Your task to perform on an android device: Search for vegetarian restaurants on Maps Image 0: 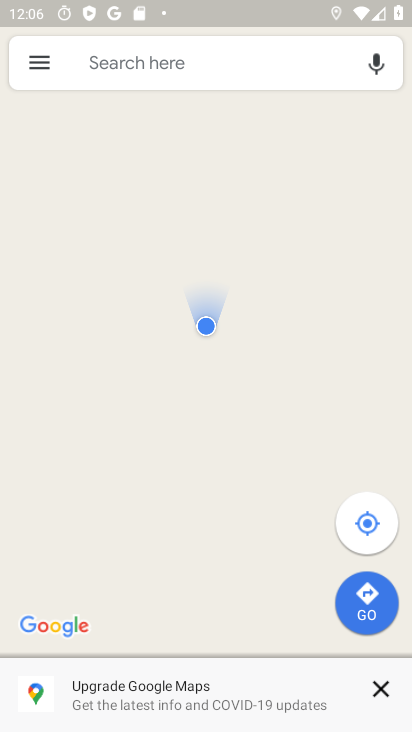
Step 0: press home button
Your task to perform on an android device: Search for vegetarian restaurants on Maps Image 1: 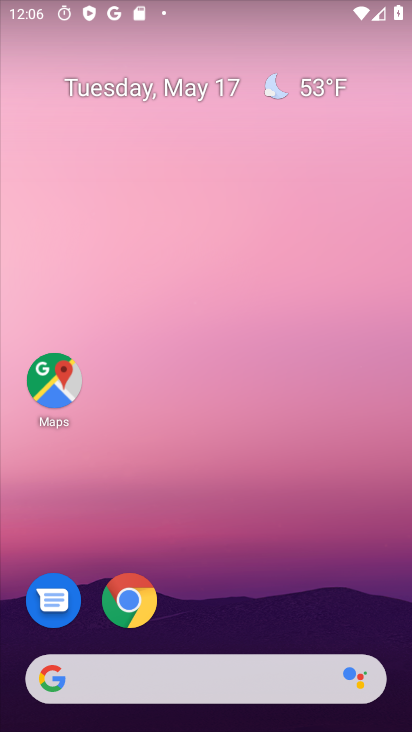
Step 1: drag from (227, 622) to (238, 124)
Your task to perform on an android device: Search for vegetarian restaurants on Maps Image 2: 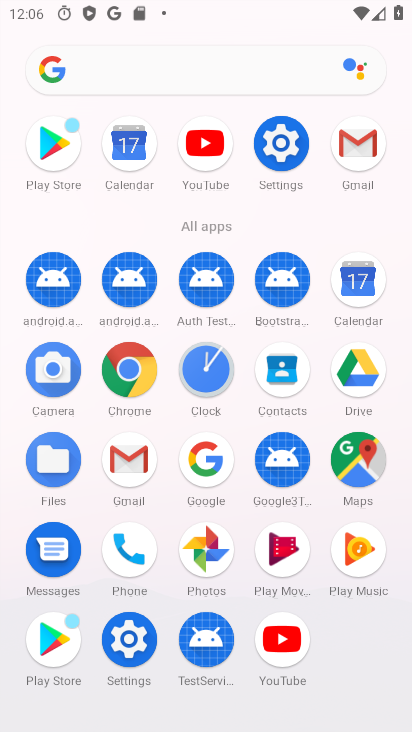
Step 2: click (362, 468)
Your task to perform on an android device: Search for vegetarian restaurants on Maps Image 3: 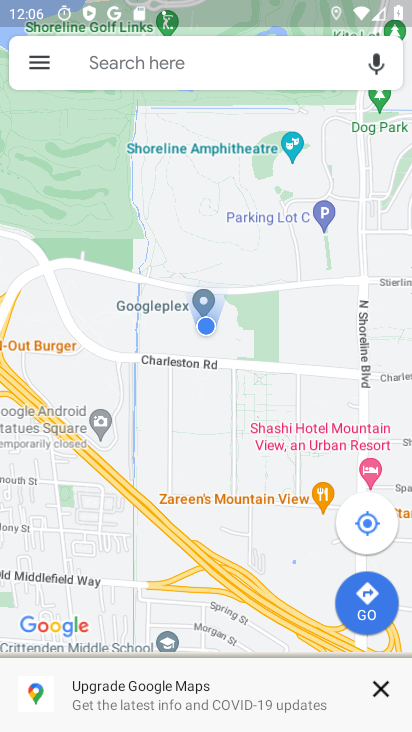
Step 3: click (171, 68)
Your task to perform on an android device: Search for vegetarian restaurants on Maps Image 4: 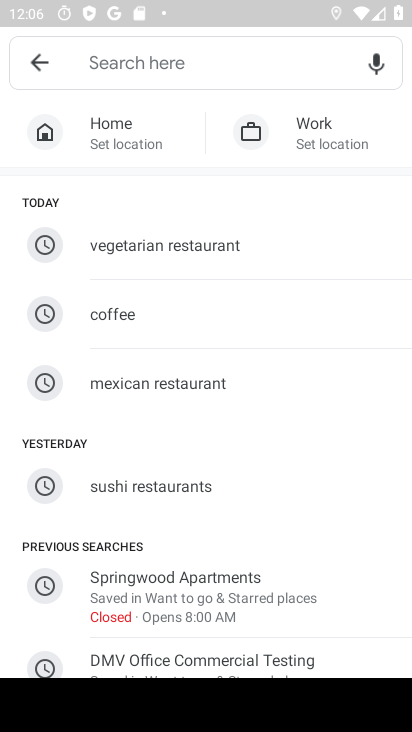
Step 4: type "vegetarian restaurants"
Your task to perform on an android device: Search for vegetarian restaurants on Maps Image 5: 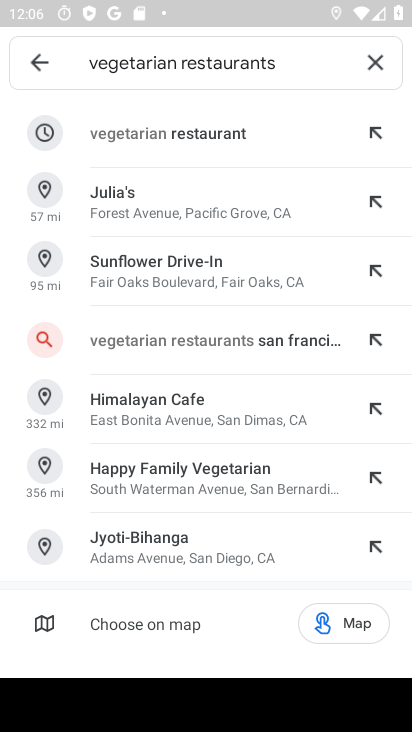
Step 5: click (192, 127)
Your task to perform on an android device: Search for vegetarian restaurants on Maps Image 6: 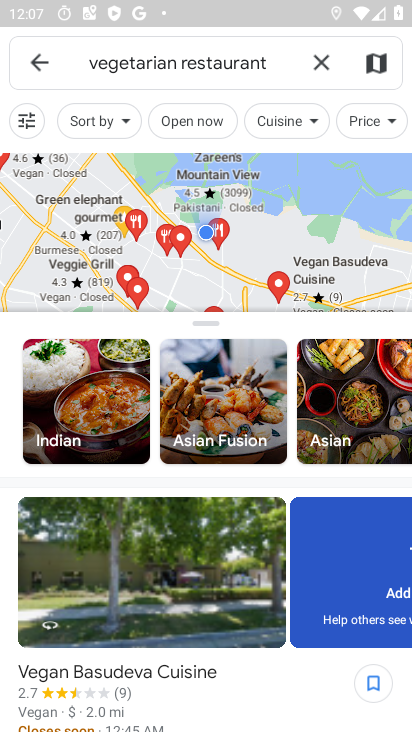
Step 6: task complete